Your task to perform on an android device: Is it going to rain today? Image 0: 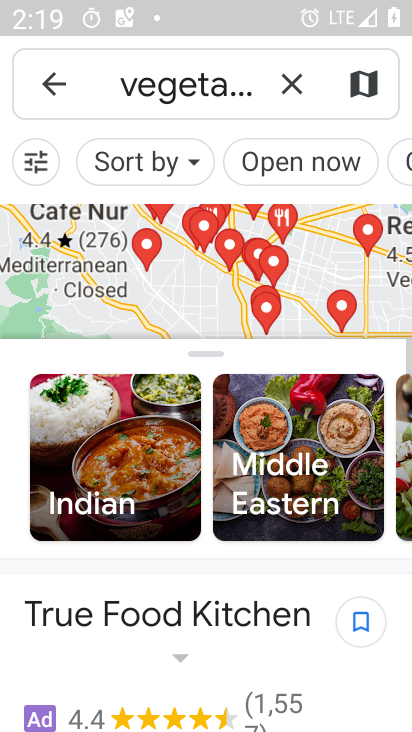
Step 0: press home button
Your task to perform on an android device: Is it going to rain today? Image 1: 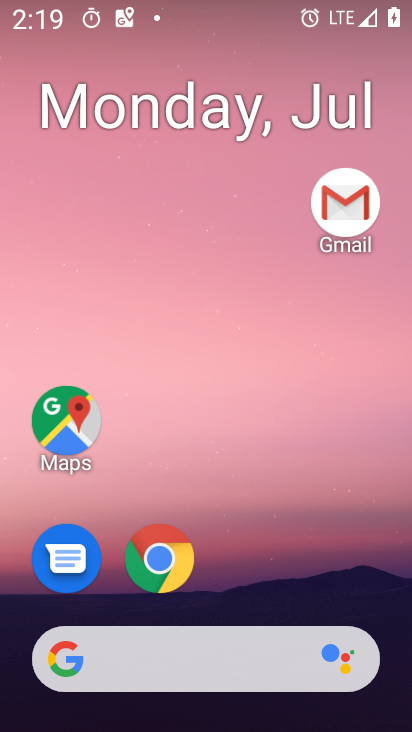
Step 1: click (222, 646)
Your task to perform on an android device: Is it going to rain today? Image 2: 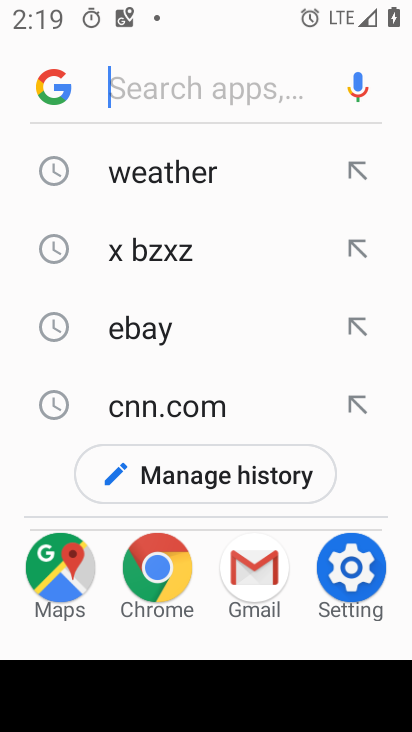
Step 2: click (215, 179)
Your task to perform on an android device: Is it going to rain today? Image 3: 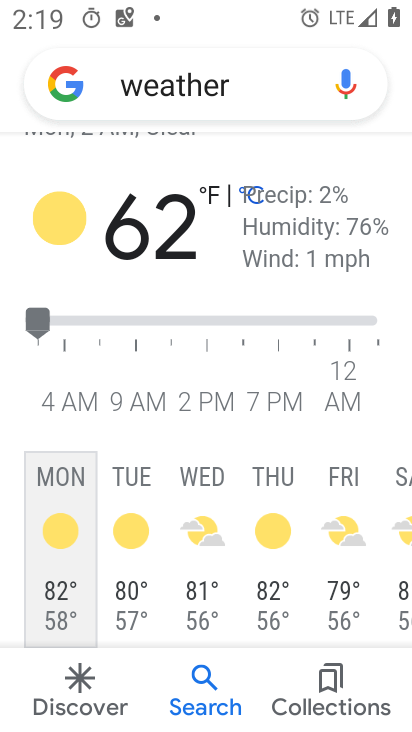
Step 3: task complete